Your task to perform on an android device: Open calendar and show me the second week of next month Image 0: 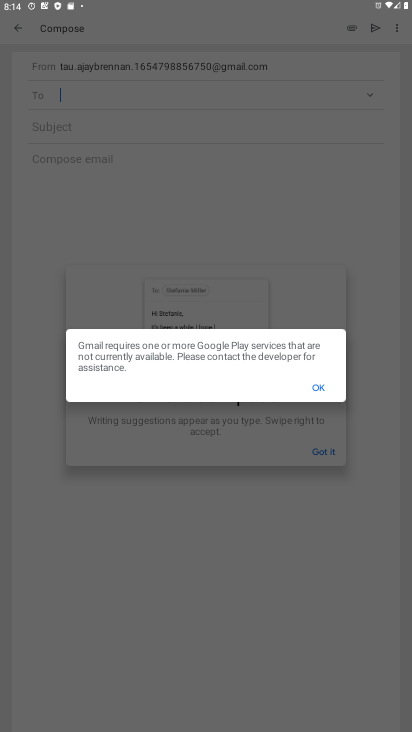
Step 0: press home button
Your task to perform on an android device: Open calendar and show me the second week of next month Image 1: 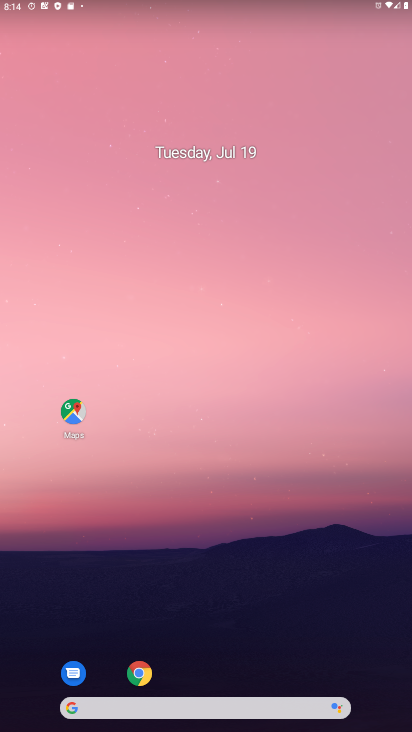
Step 1: drag from (190, 611) to (150, 0)
Your task to perform on an android device: Open calendar and show me the second week of next month Image 2: 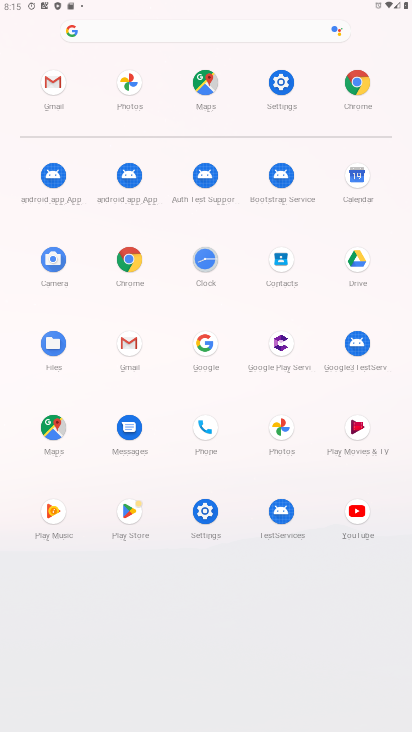
Step 2: click (358, 181)
Your task to perform on an android device: Open calendar and show me the second week of next month Image 3: 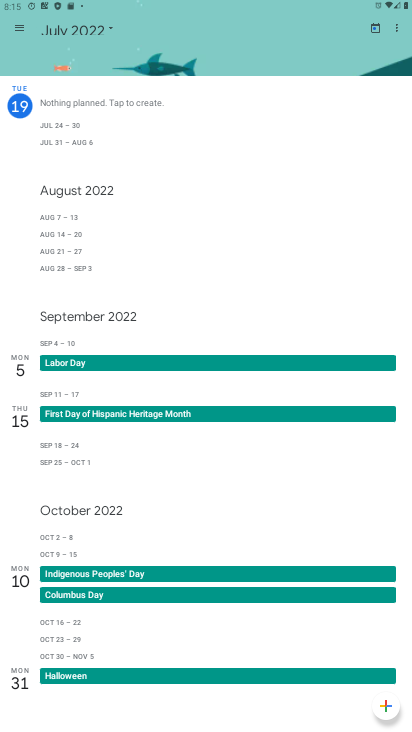
Step 3: click (70, 25)
Your task to perform on an android device: Open calendar and show me the second week of next month Image 4: 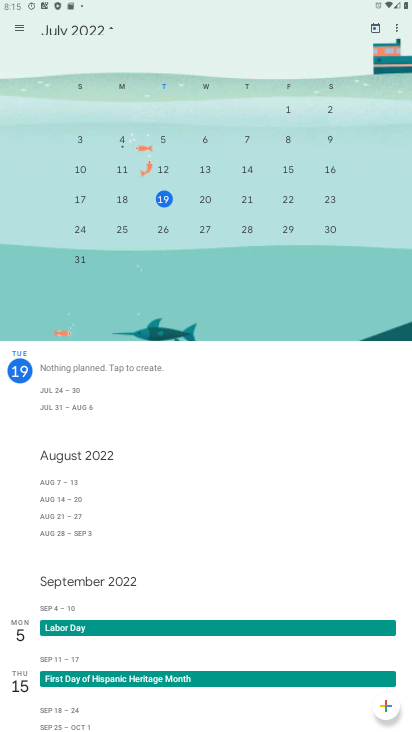
Step 4: drag from (317, 256) to (28, 194)
Your task to perform on an android device: Open calendar and show me the second week of next month Image 5: 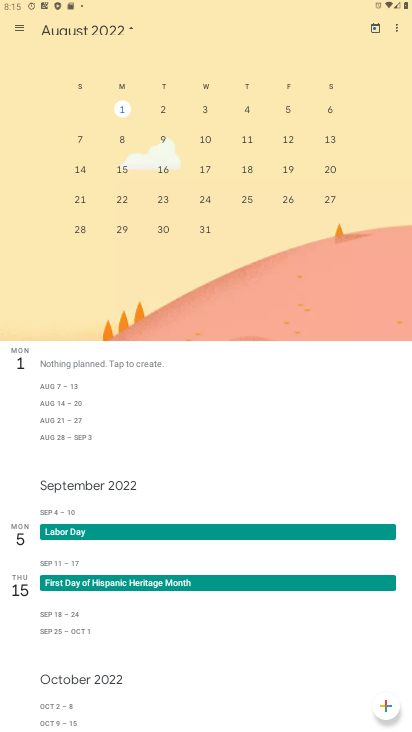
Step 5: click (79, 171)
Your task to perform on an android device: Open calendar and show me the second week of next month Image 6: 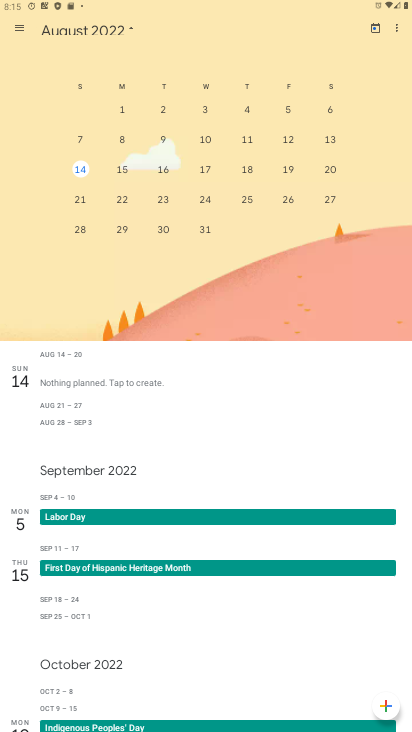
Step 6: task complete